Your task to perform on an android device: open device folders in google photos Image 0: 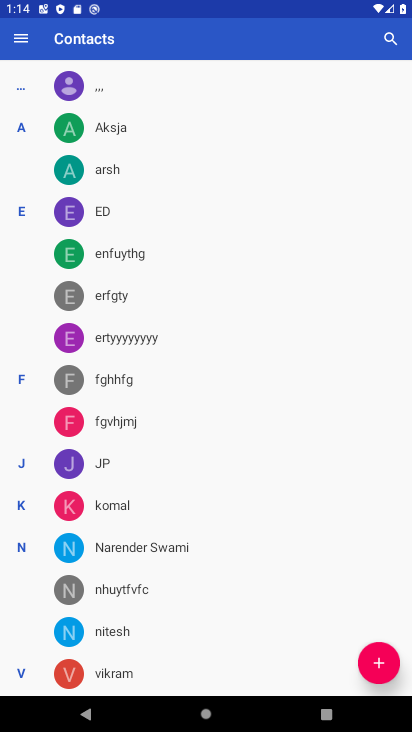
Step 0: press home button
Your task to perform on an android device: open device folders in google photos Image 1: 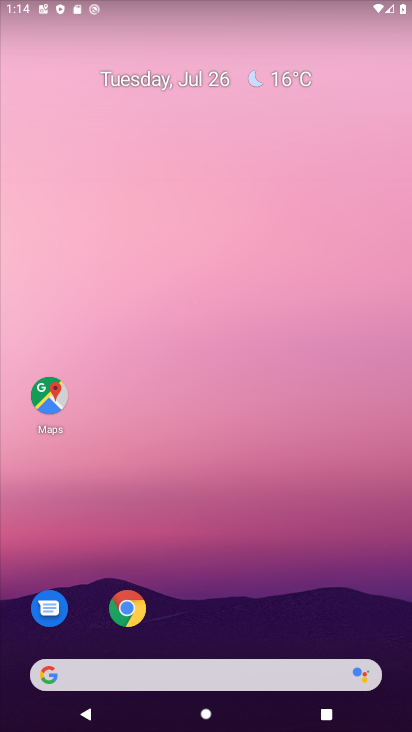
Step 1: drag from (281, 617) to (311, 127)
Your task to perform on an android device: open device folders in google photos Image 2: 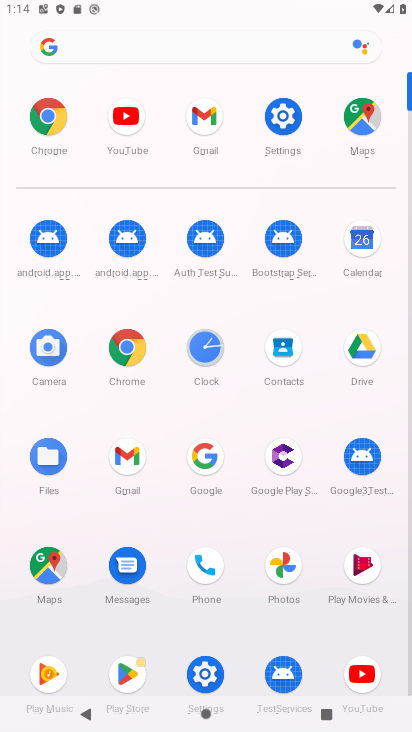
Step 2: click (289, 585)
Your task to perform on an android device: open device folders in google photos Image 3: 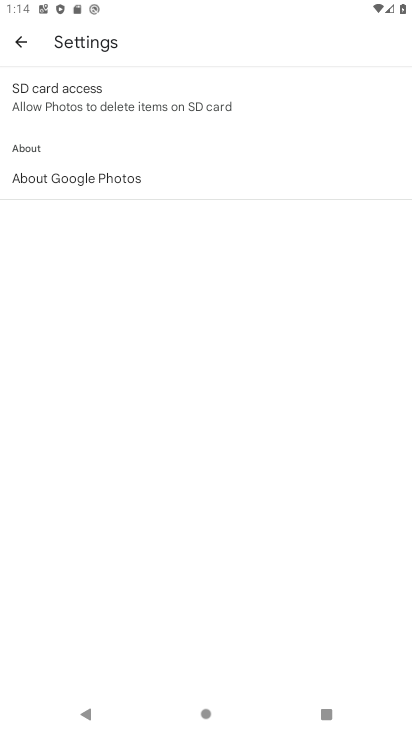
Step 3: click (30, 50)
Your task to perform on an android device: open device folders in google photos Image 4: 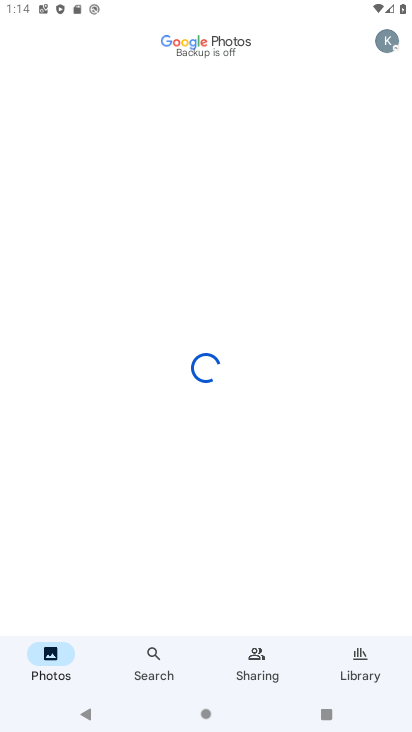
Step 4: task complete